Your task to perform on an android device: Check the weather Image 0: 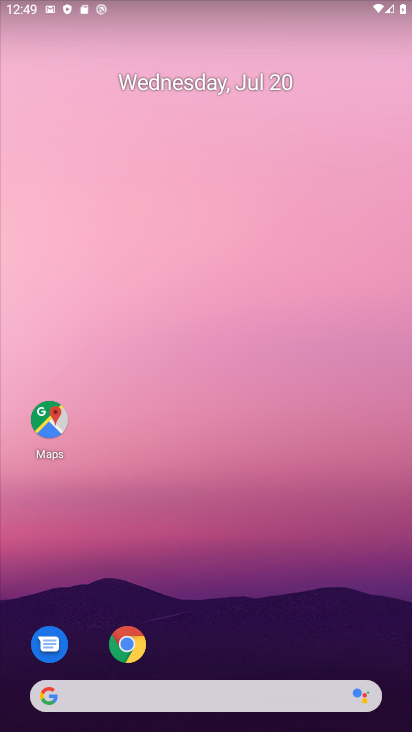
Step 0: drag from (203, 638) to (227, 99)
Your task to perform on an android device: Check the weather Image 1: 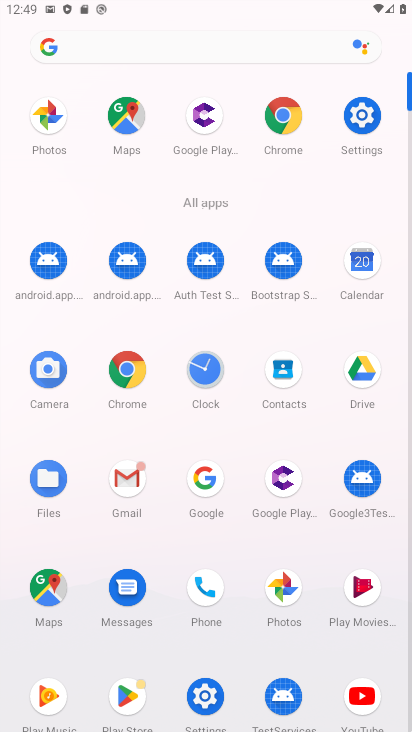
Step 1: click (205, 478)
Your task to perform on an android device: Check the weather Image 2: 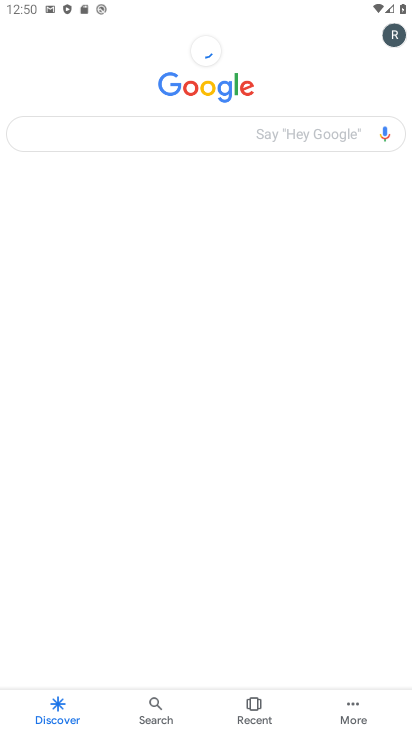
Step 2: click (181, 134)
Your task to perform on an android device: Check the weather Image 3: 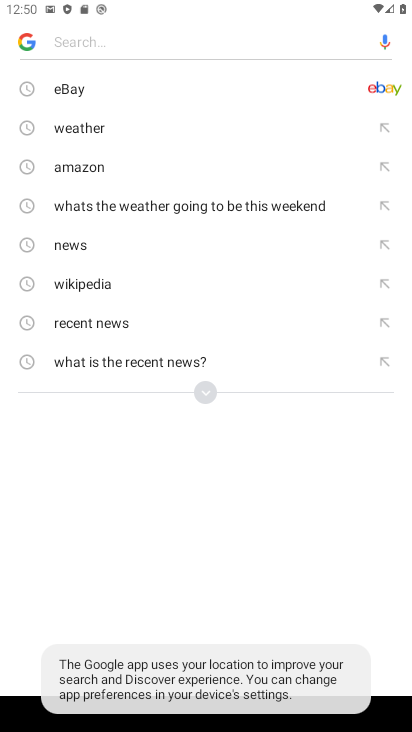
Step 3: click (66, 123)
Your task to perform on an android device: Check the weather Image 4: 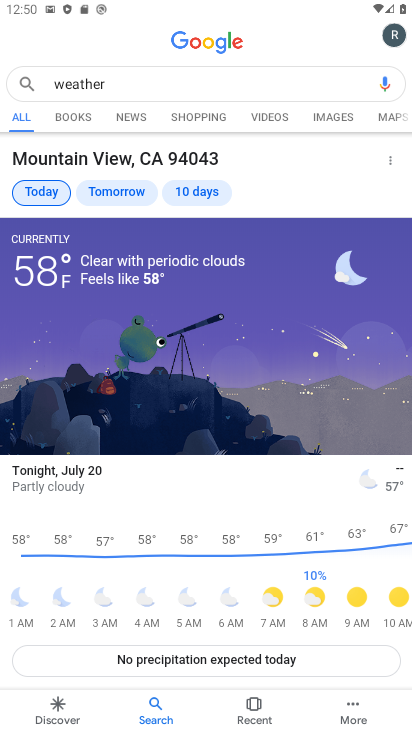
Step 4: task complete